Your task to perform on an android device: turn vacation reply on in the gmail app Image 0: 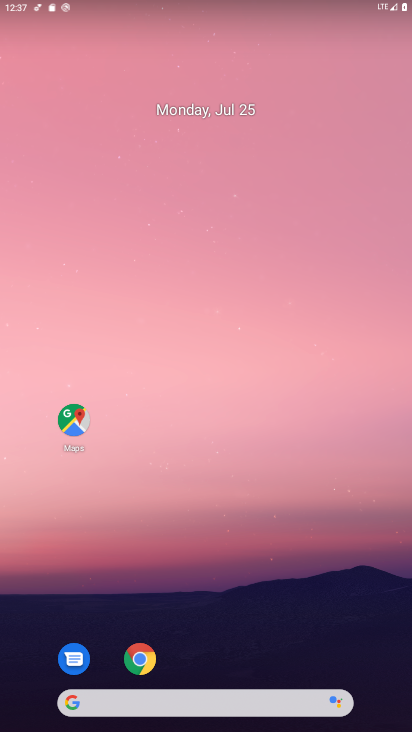
Step 0: press home button
Your task to perform on an android device: turn vacation reply on in the gmail app Image 1: 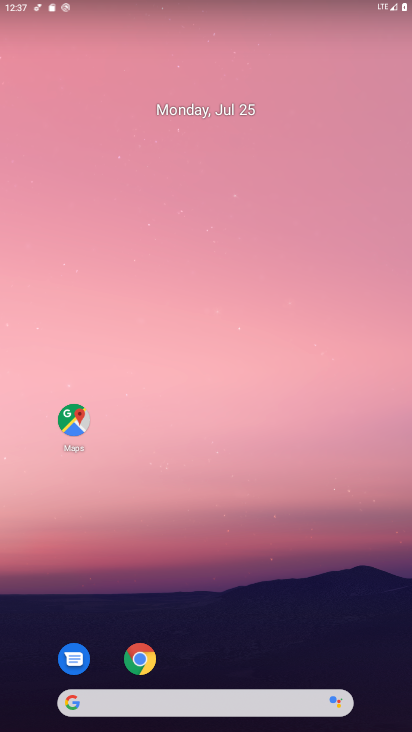
Step 1: drag from (215, 674) to (204, 25)
Your task to perform on an android device: turn vacation reply on in the gmail app Image 2: 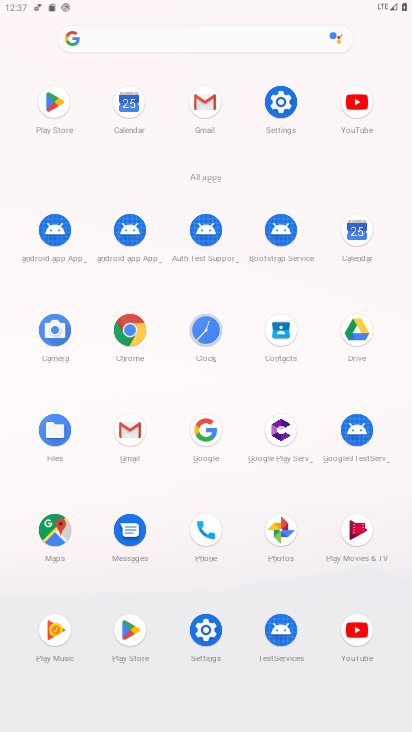
Step 2: click (202, 97)
Your task to perform on an android device: turn vacation reply on in the gmail app Image 3: 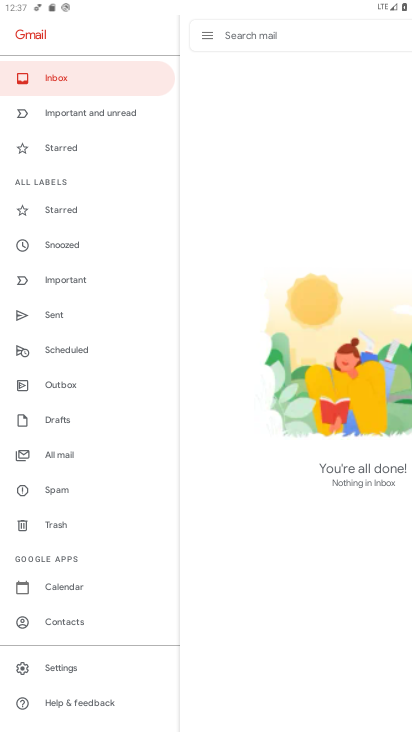
Step 3: click (91, 664)
Your task to perform on an android device: turn vacation reply on in the gmail app Image 4: 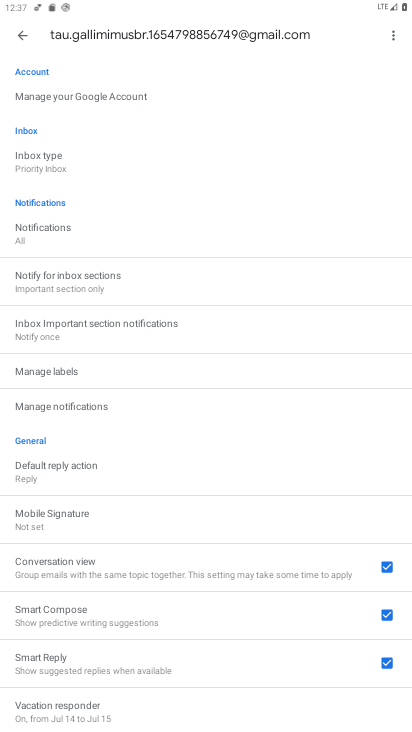
Step 4: click (131, 706)
Your task to perform on an android device: turn vacation reply on in the gmail app Image 5: 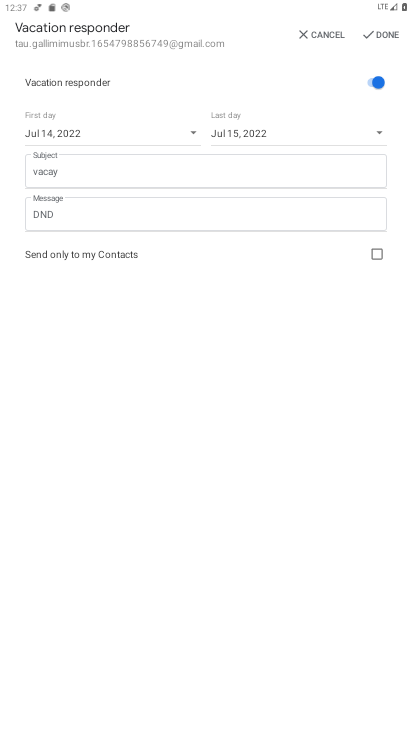
Step 5: task complete